Your task to perform on an android device: Search for sushi restaurants on Maps Image 0: 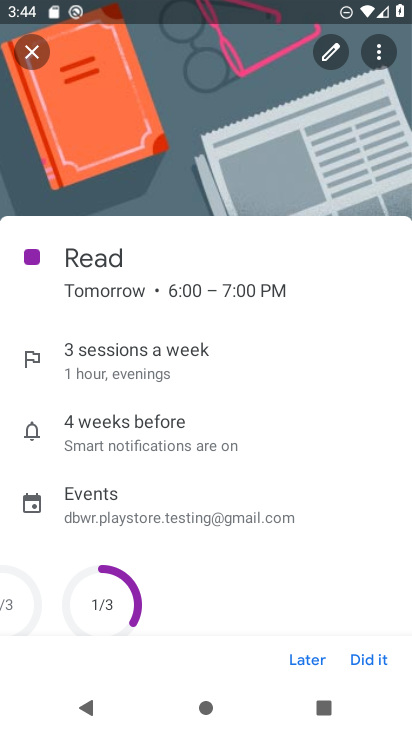
Step 0: press home button
Your task to perform on an android device: Search for sushi restaurants on Maps Image 1: 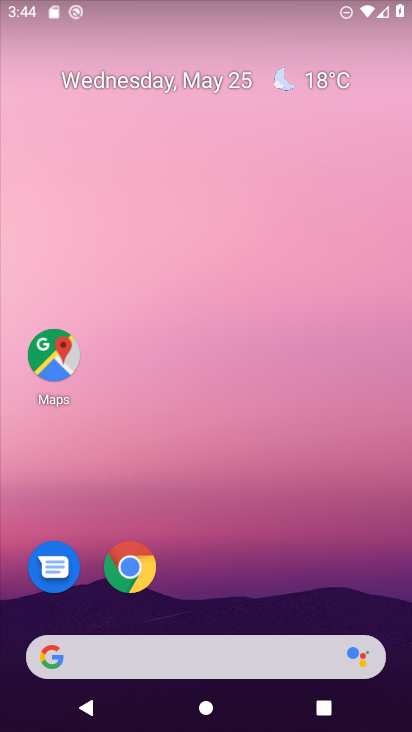
Step 1: drag from (387, 593) to (383, 247)
Your task to perform on an android device: Search for sushi restaurants on Maps Image 2: 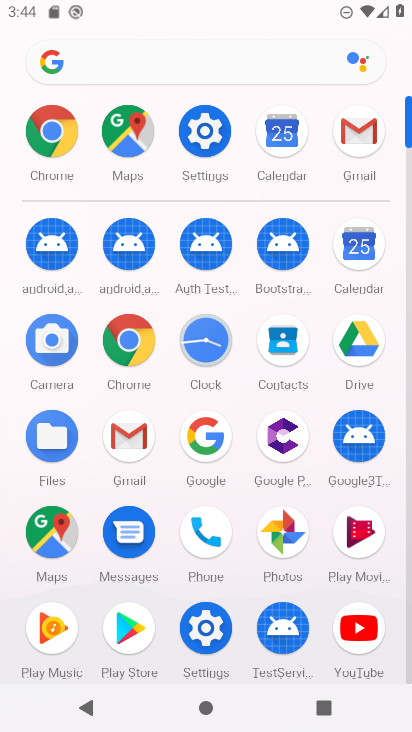
Step 2: click (59, 541)
Your task to perform on an android device: Search for sushi restaurants on Maps Image 3: 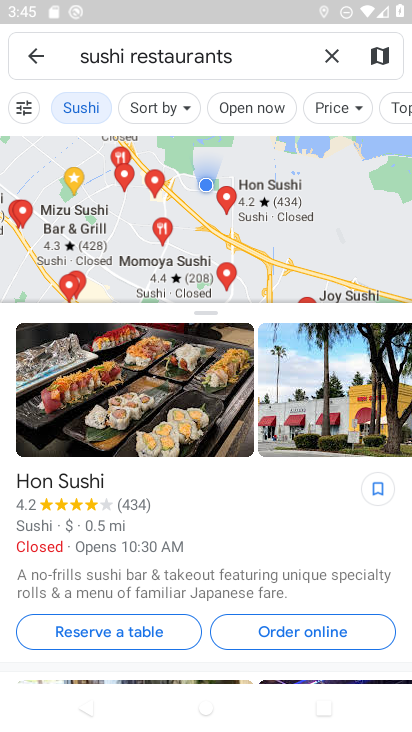
Step 3: task complete